Your task to perform on an android device: Open Google Image 0: 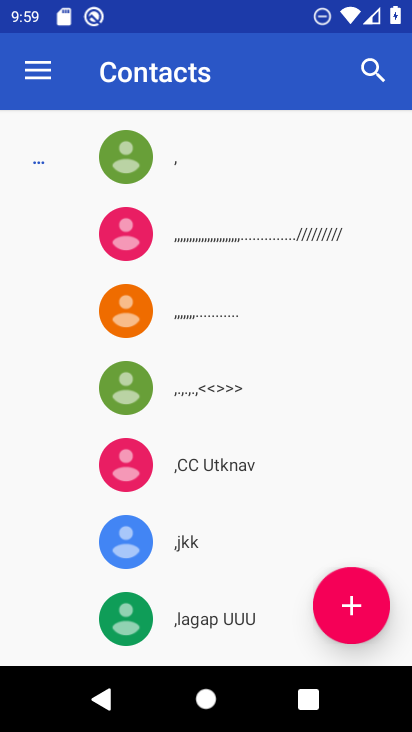
Step 0: press home button
Your task to perform on an android device: Open Google Image 1: 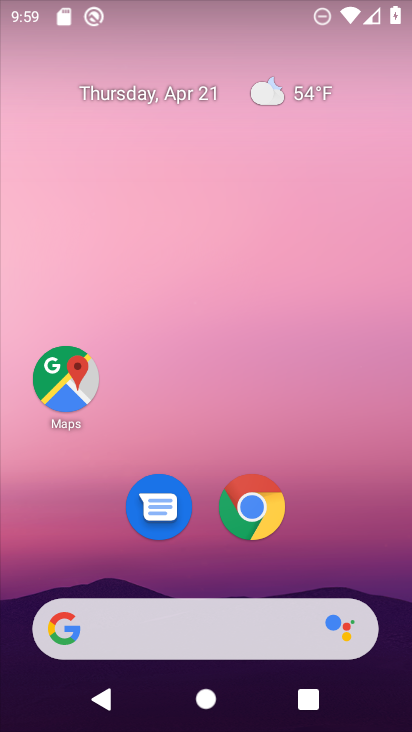
Step 1: drag from (199, 597) to (206, 262)
Your task to perform on an android device: Open Google Image 2: 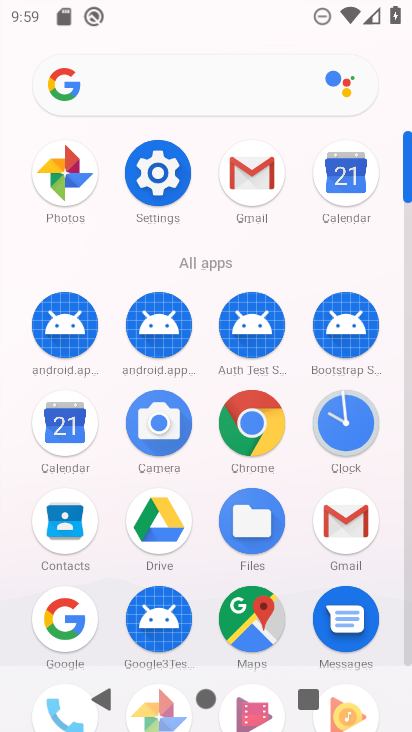
Step 2: click (72, 618)
Your task to perform on an android device: Open Google Image 3: 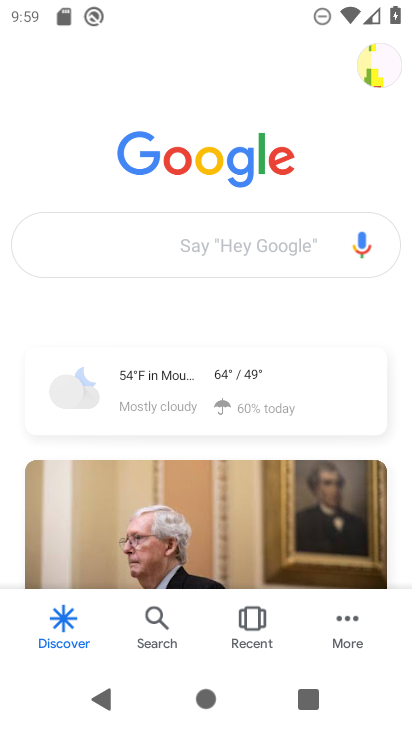
Step 3: task complete